Your task to perform on an android device: turn off picture-in-picture Image 0: 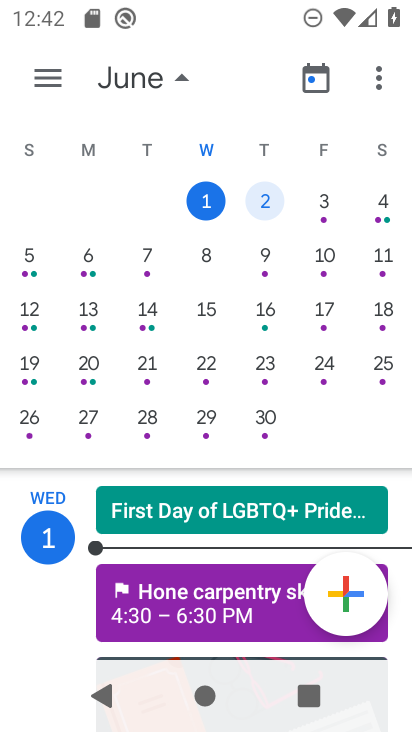
Step 0: press home button
Your task to perform on an android device: turn off picture-in-picture Image 1: 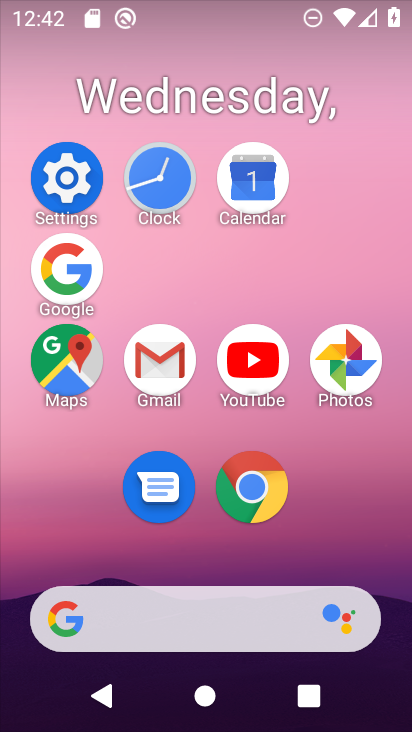
Step 1: click (271, 497)
Your task to perform on an android device: turn off picture-in-picture Image 2: 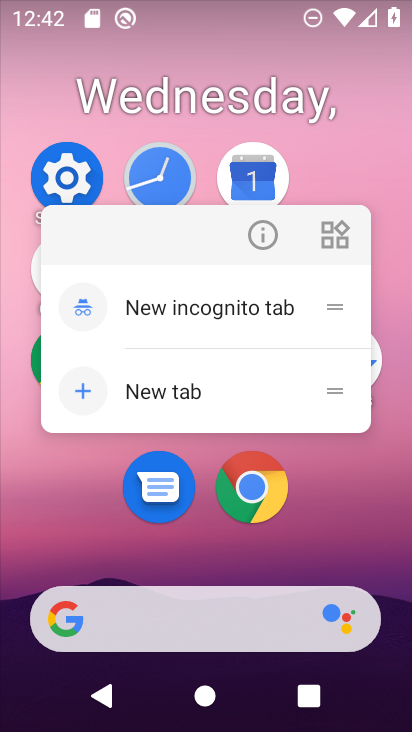
Step 2: click (263, 232)
Your task to perform on an android device: turn off picture-in-picture Image 3: 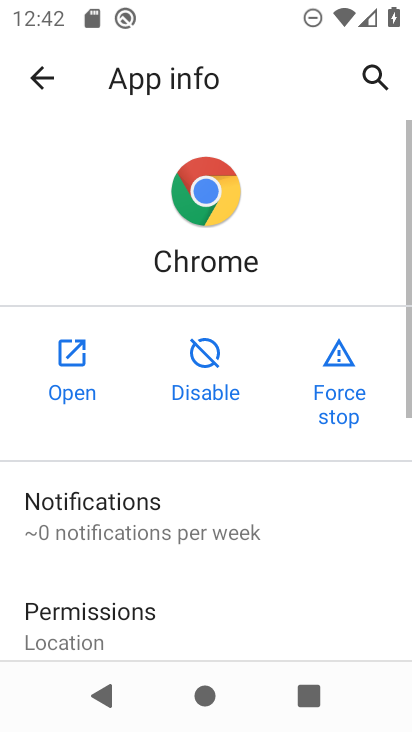
Step 3: drag from (264, 585) to (319, 131)
Your task to perform on an android device: turn off picture-in-picture Image 4: 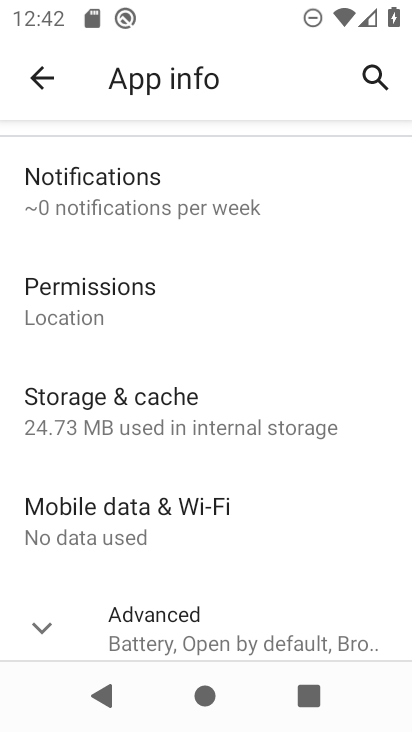
Step 4: click (230, 612)
Your task to perform on an android device: turn off picture-in-picture Image 5: 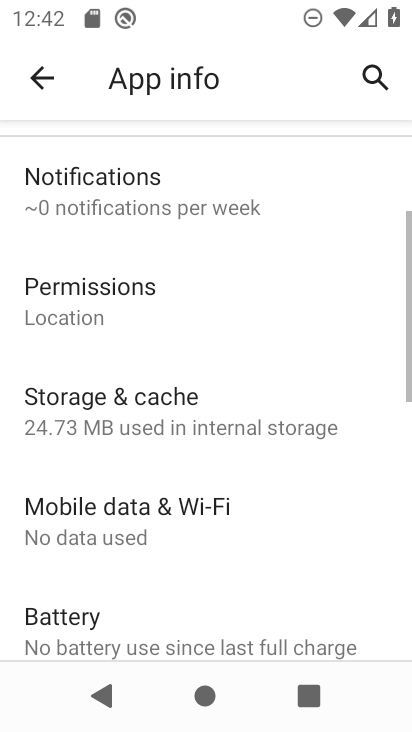
Step 5: drag from (230, 611) to (288, 168)
Your task to perform on an android device: turn off picture-in-picture Image 6: 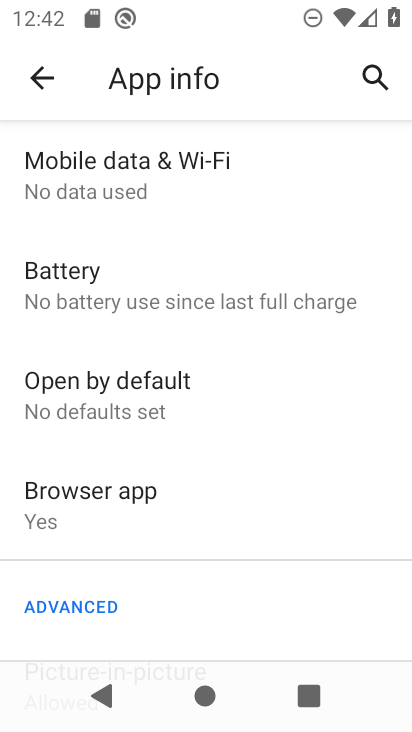
Step 6: drag from (194, 561) to (255, 189)
Your task to perform on an android device: turn off picture-in-picture Image 7: 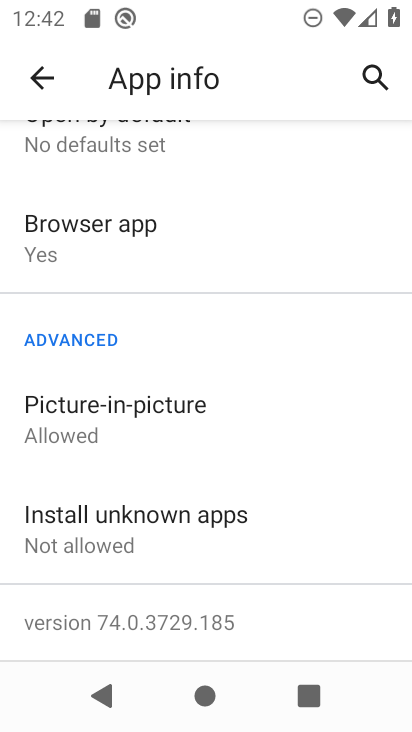
Step 7: click (260, 416)
Your task to perform on an android device: turn off picture-in-picture Image 8: 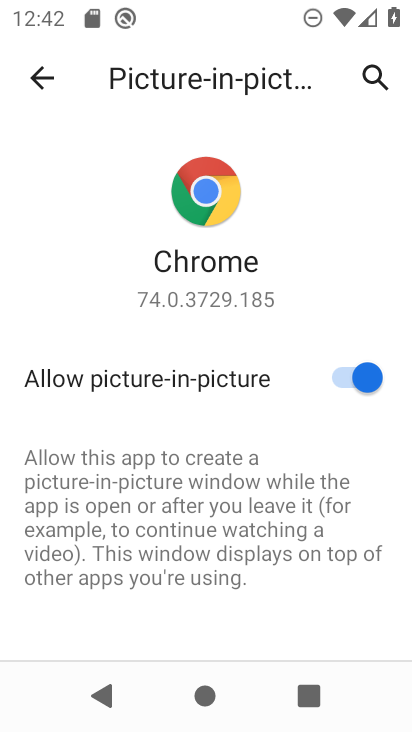
Step 8: click (357, 357)
Your task to perform on an android device: turn off picture-in-picture Image 9: 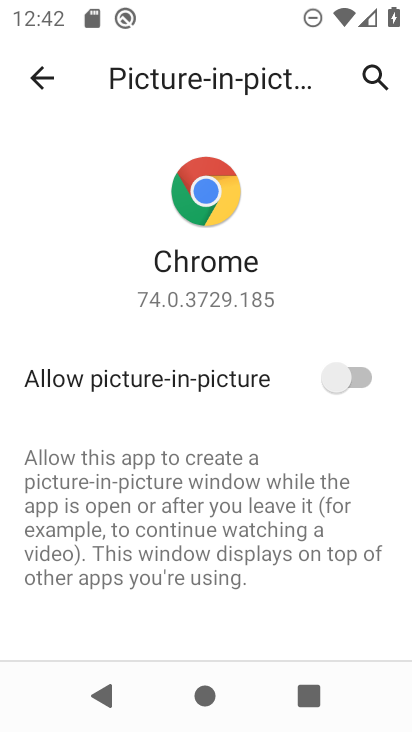
Step 9: task complete